Your task to perform on an android device: What's the weather going to be this weekend? Image 0: 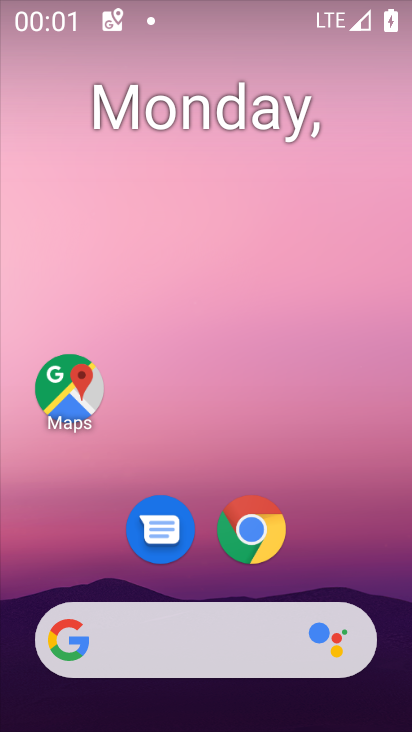
Step 0: drag from (316, 528) to (313, 151)
Your task to perform on an android device: What's the weather going to be this weekend? Image 1: 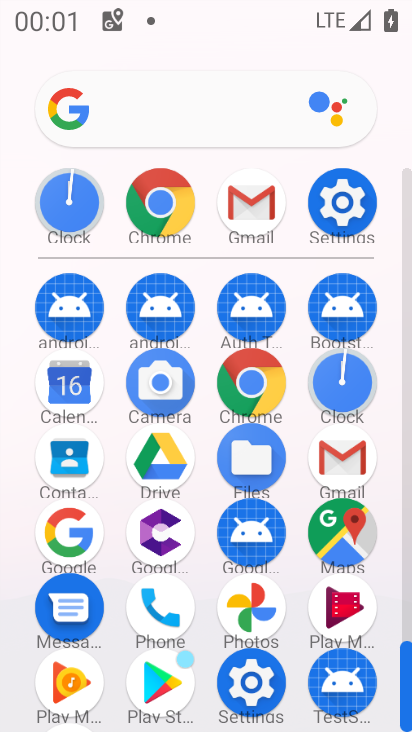
Step 1: click (66, 532)
Your task to perform on an android device: What's the weather going to be this weekend? Image 2: 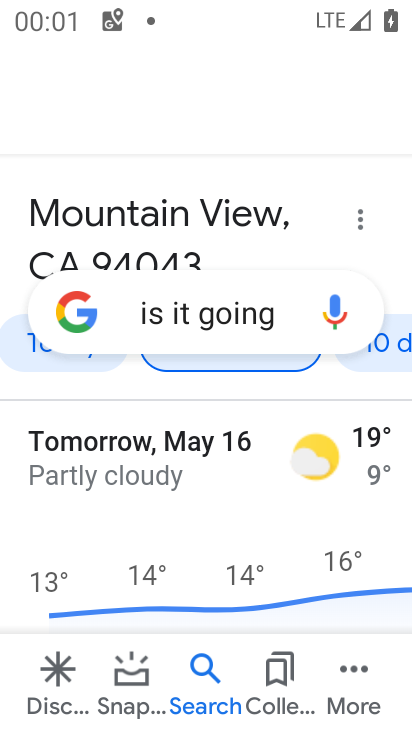
Step 2: click (252, 304)
Your task to perform on an android device: What's the weather going to be this weekend? Image 3: 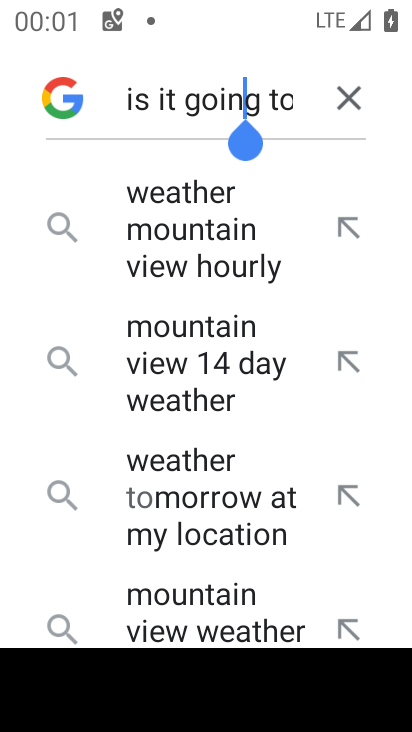
Step 3: click (341, 90)
Your task to perform on an android device: What's the weather going to be this weekend? Image 4: 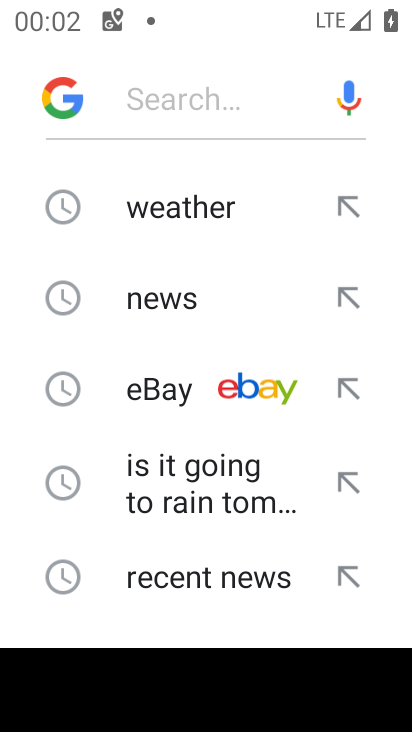
Step 4: type "weather weekend"
Your task to perform on an android device: What's the weather going to be this weekend? Image 5: 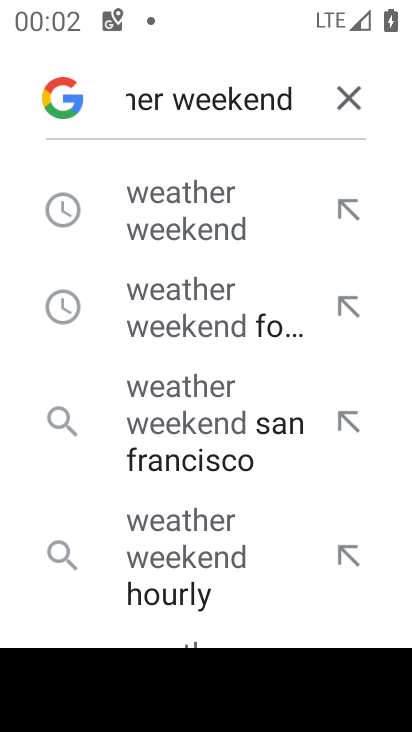
Step 5: click (211, 229)
Your task to perform on an android device: What's the weather going to be this weekend? Image 6: 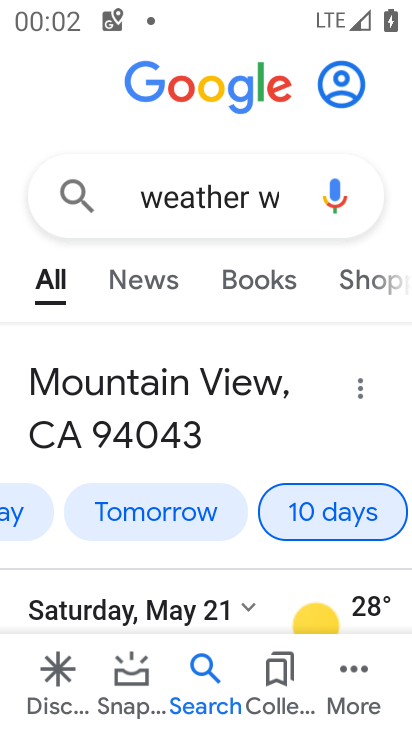
Step 6: task complete